Your task to perform on an android device: check battery use Image 0: 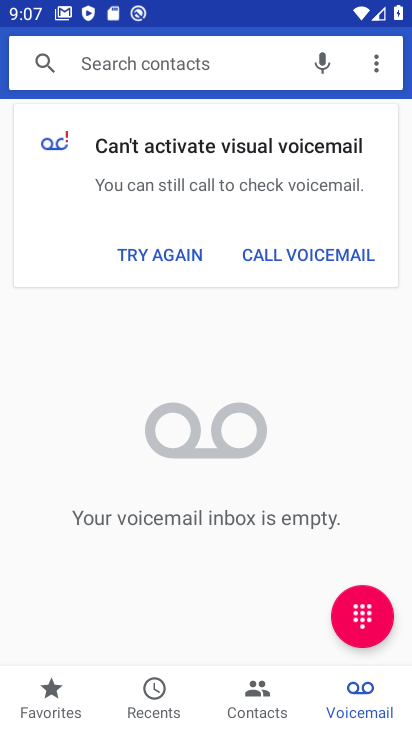
Step 0: press home button
Your task to perform on an android device: check battery use Image 1: 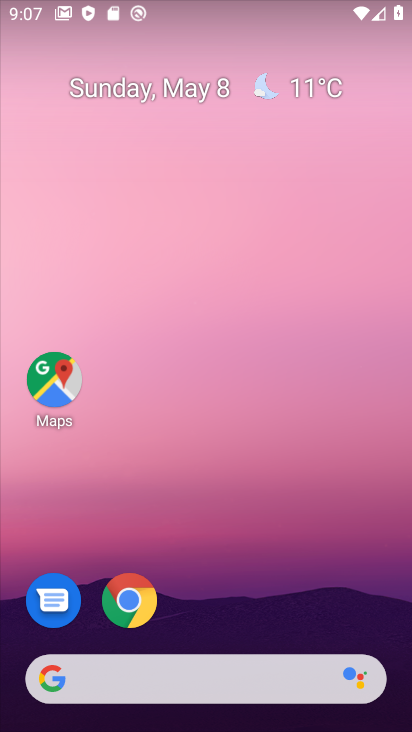
Step 1: drag from (184, 617) to (286, 91)
Your task to perform on an android device: check battery use Image 2: 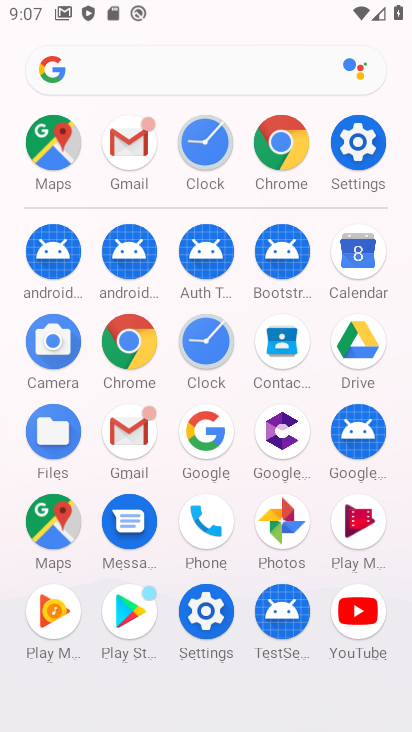
Step 2: click (368, 139)
Your task to perform on an android device: check battery use Image 3: 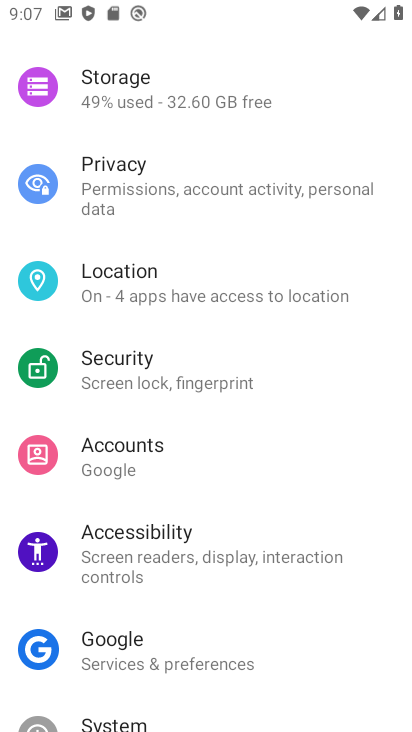
Step 3: drag from (204, 248) to (250, 716)
Your task to perform on an android device: check battery use Image 4: 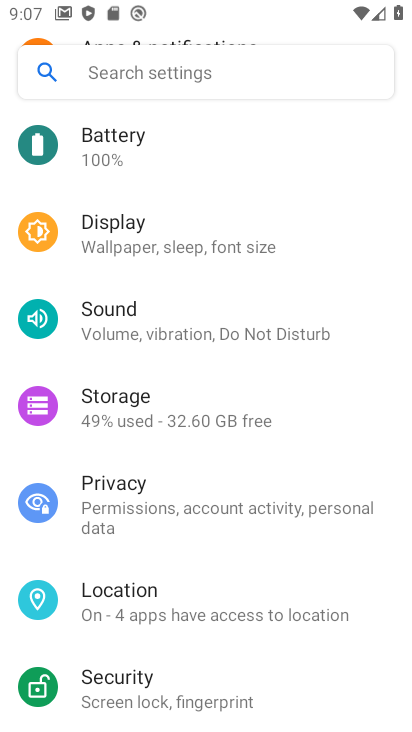
Step 4: click (118, 151)
Your task to perform on an android device: check battery use Image 5: 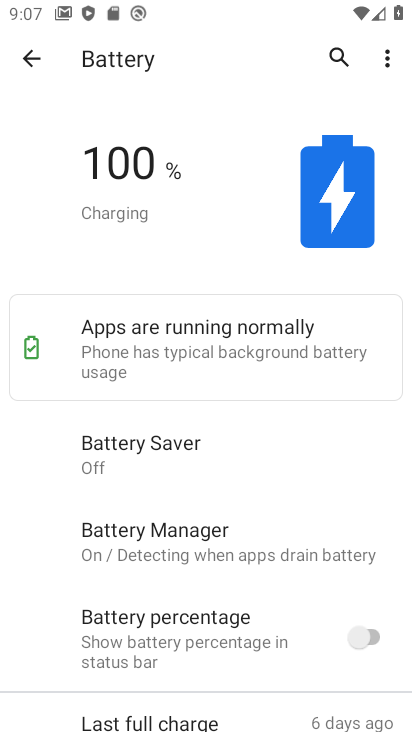
Step 5: click (401, 46)
Your task to perform on an android device: check battery use Image 6: 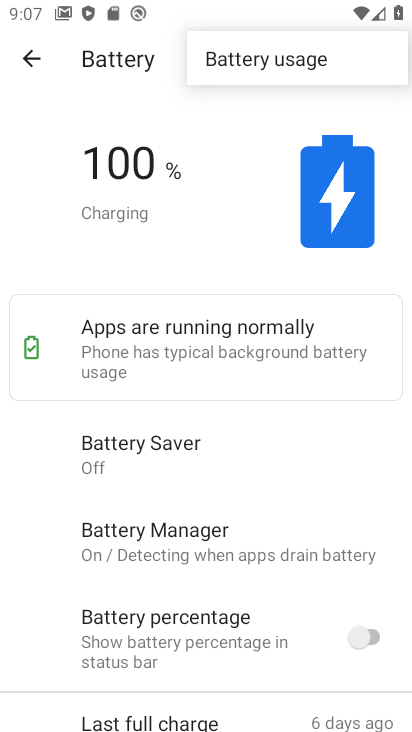
Step 6: click (360, 56)
Your task to perform on an android device: check battery use Image 7: 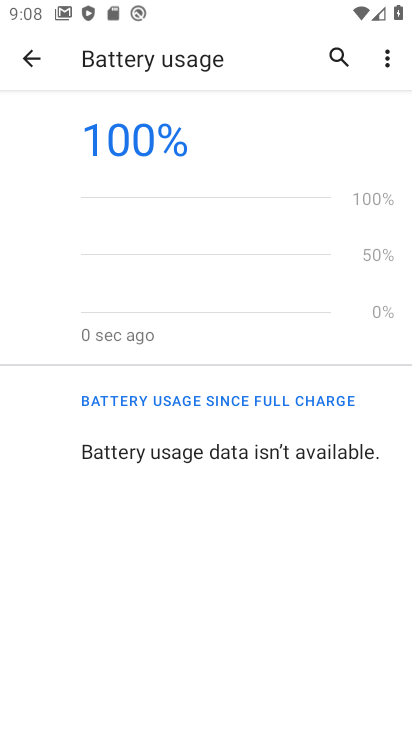
Step 7: task complete